Your task to perform on an android device: Check the settings for the Amazon Prime Video app Image 0: 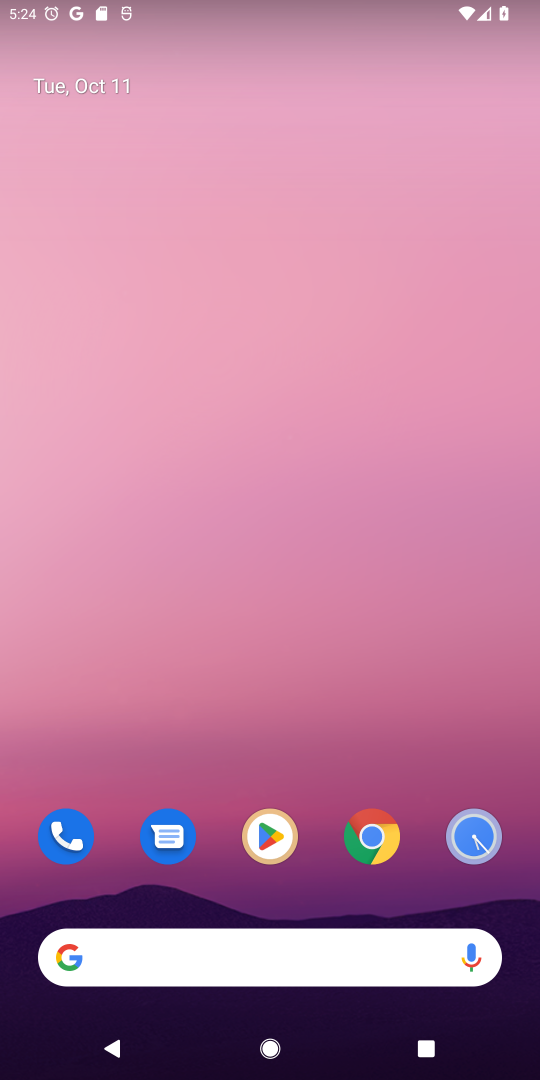
Step 0: task impossible